Your task to perform on an android device: Go to Yahoo.com Image 0: 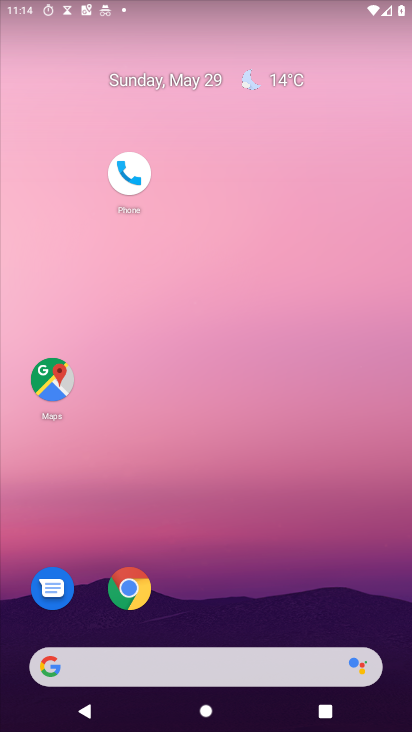
Step 0: drag from (225, 557) to (145, 183)
Your task to perform on an android device: Go to Yahoo.com Image 1: 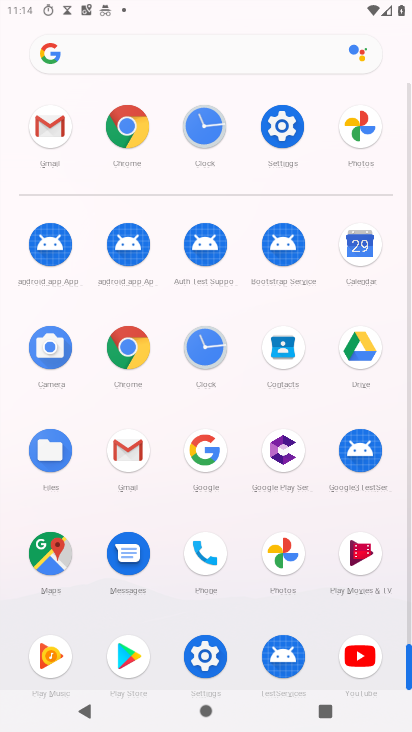
Step 1: click (128, 128)
Your task to perform on an android device: Go to Yahoo.com Image 2: 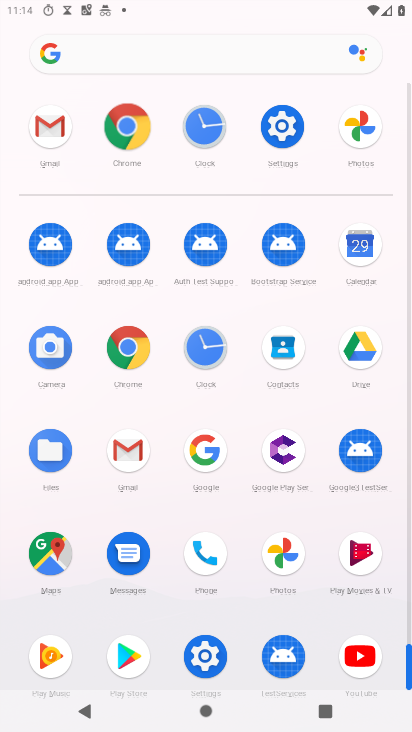
Step 2: click (128, 128)
Your task to perform on an android device: Go to Yahoo.com Image 3: 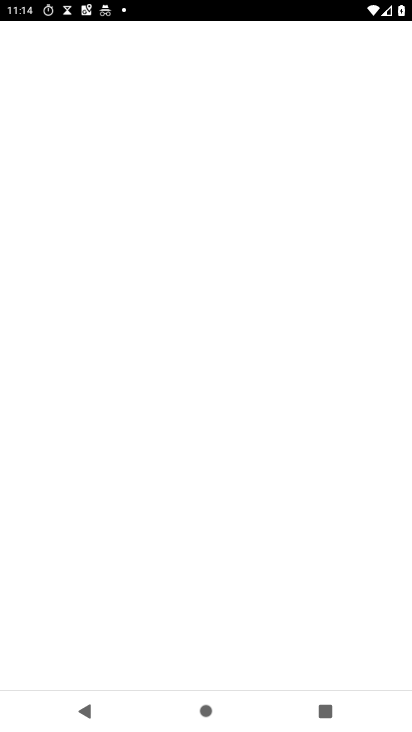
Step 3: click (133, 126)
Your task to perform on an android device: Go to Yahoo.com Image 4: 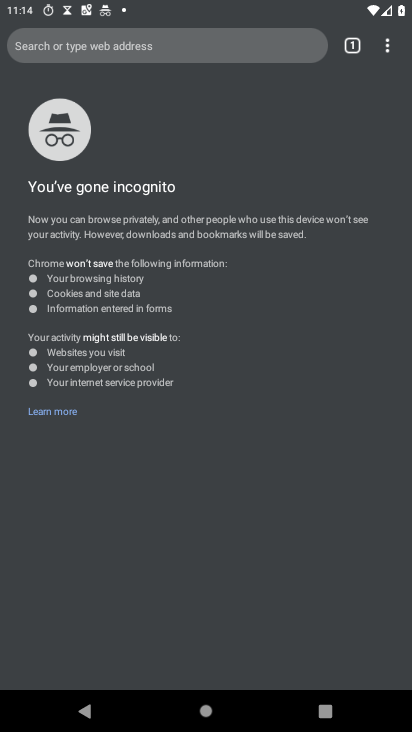
Step 4: click (389, 50)
Your task to perform on an android device: Go to Yahoo.com Image 5: 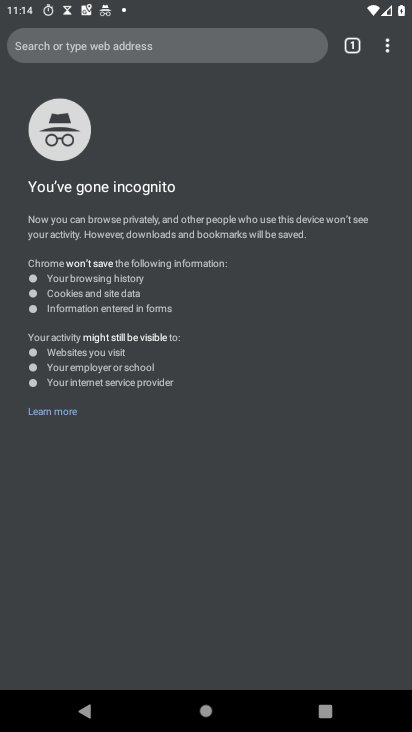
Step 5: drag from (388, 53) to (206, 87)
Your task to perform on an android device: Go to Yahoo.com Image 6: 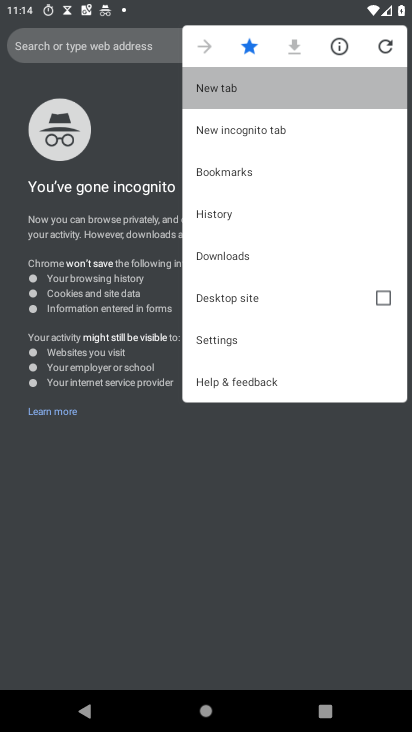
Step 6: click (206, 87)
Your task to perform on an android device: Go to Yahoo.com Image 7: 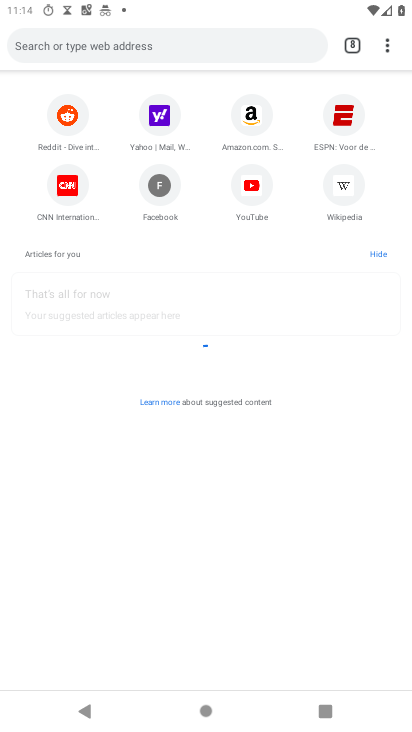
Step 7: click (167, 115)
Your task to perform on an android device: Go to Yahoo.com Image 8: 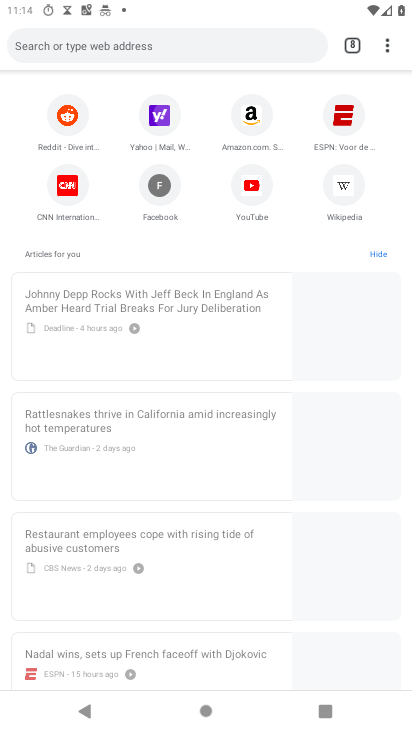
Step 8: click (167, 115)
Your task to perform on an android device: Go to Yahoo.com Image 9: 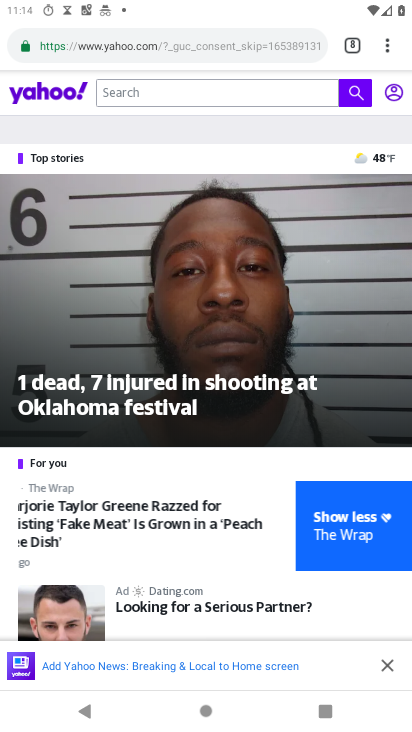
Step 9: task complete